Your task to perform on an android device: change alarm snooze length Image 0: 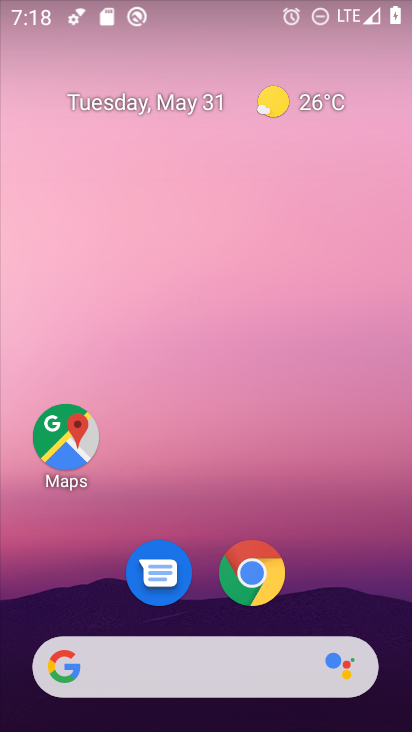
Step 0: drag from (409, 680) to (308, 91)
Your task to perform on an android device: change alarm snooze length Image 1: 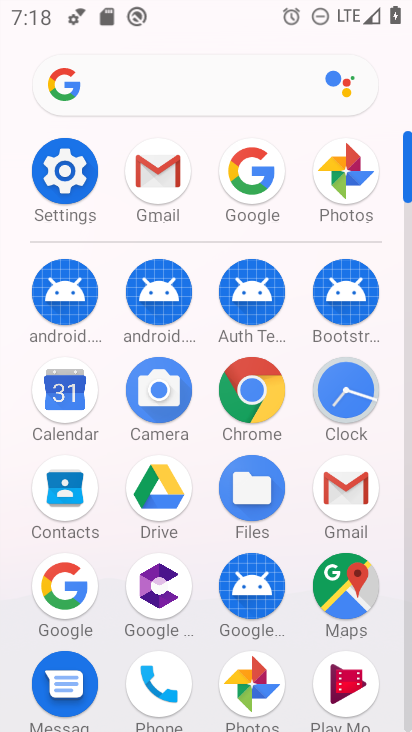
Step 1: click (350, 391)
Your task to perform on an android device: change alarm snooze length Image 2: 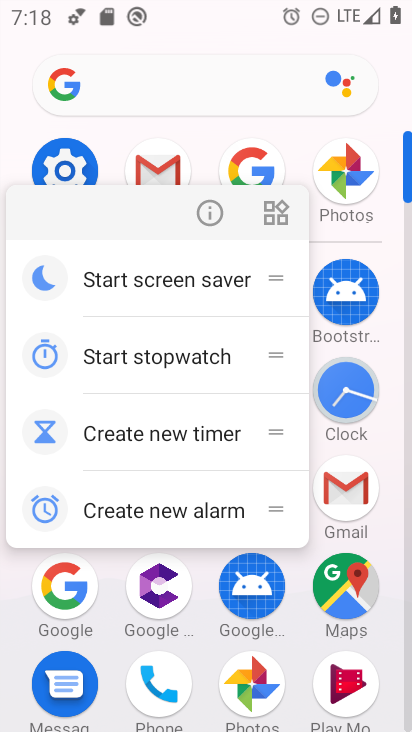
Step 2: click (350, 391)
Your task to perform on an android device: change alarm snooze length Image 3: 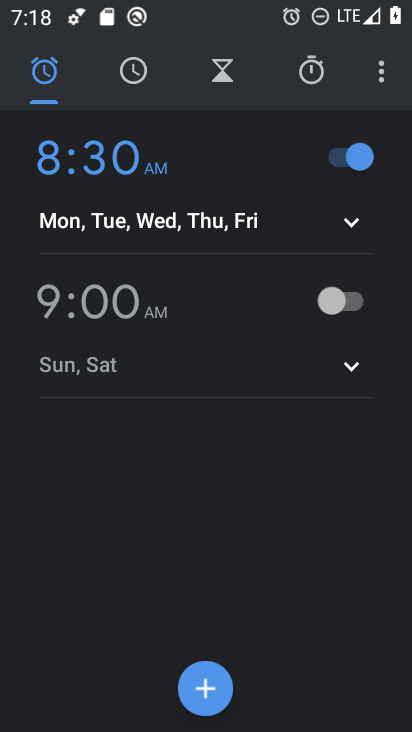
Step 3: click (374, 74)
Your task to perform on an android device: change alarm snooze length Image 4: 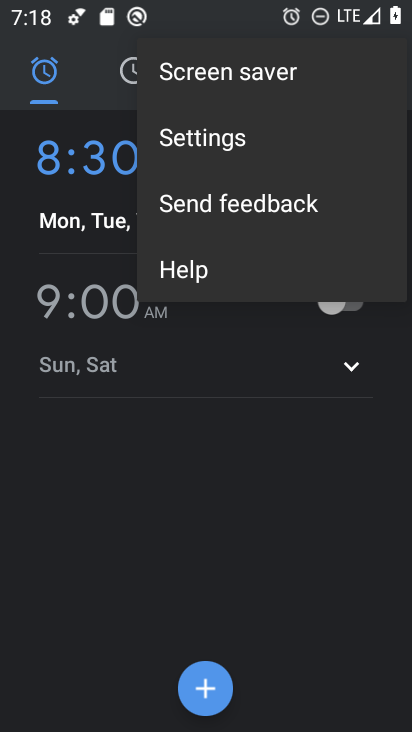
Step 4: click (217, 131)
Your task to perform on an android device: change alarm snooze length Image 5: 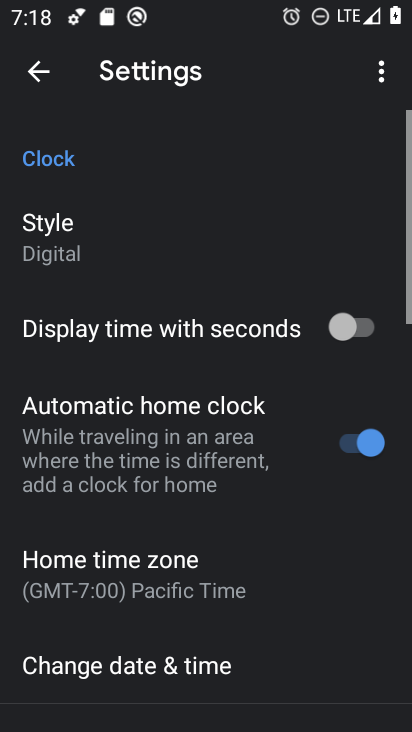
Step 5: drag from (188, 664) to (175, 114)
Your task to perform on an android device: change alarm snooze length Image 6: 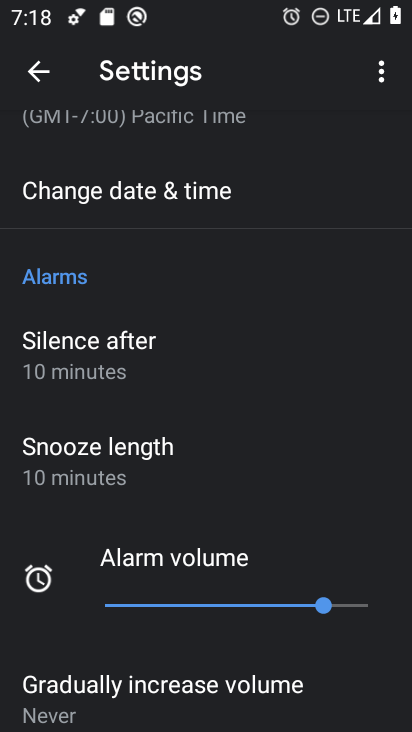
Step 6: click (172, 473)
Your task to perform on an android device: change alarm snooze length Image 7: 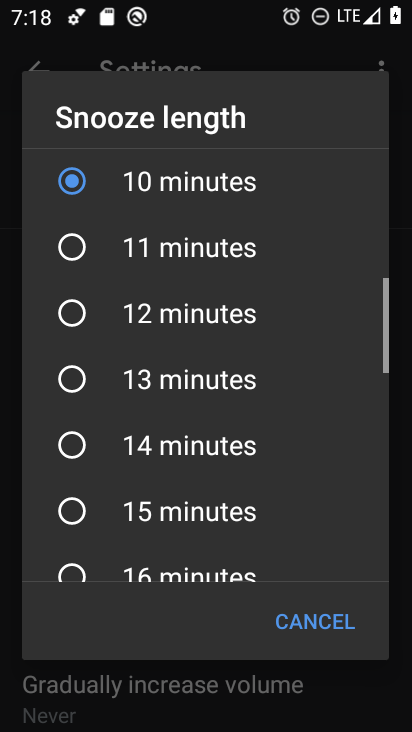
Step 7: click (77, 510)
Your task to perform on an android device: change alarm snooze length Image 8: 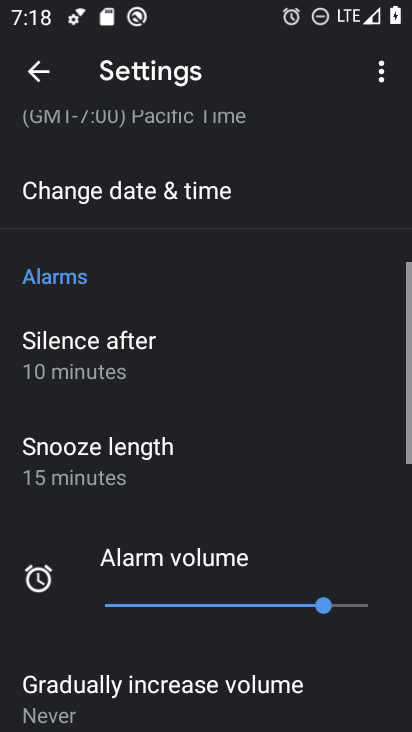
Step 8: task complete